Your task to perform on an android device: set an alarm Image 0: 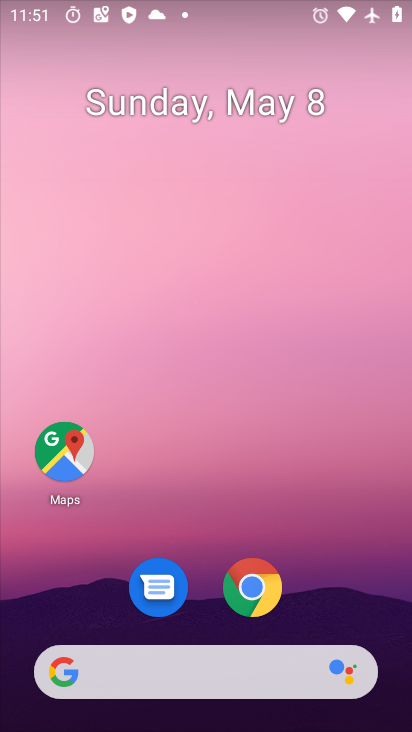
Step 0: press home button
Your task to perform on an android device: set an alarm Image 1: 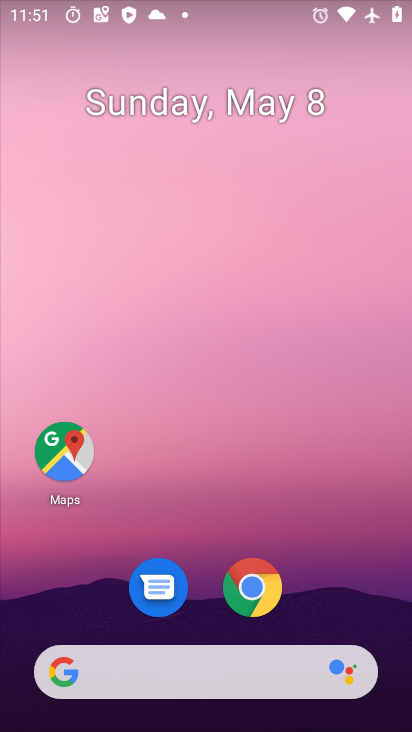
Step 1: press home button
Your task to perform on an android device: set an alarm Image 2: 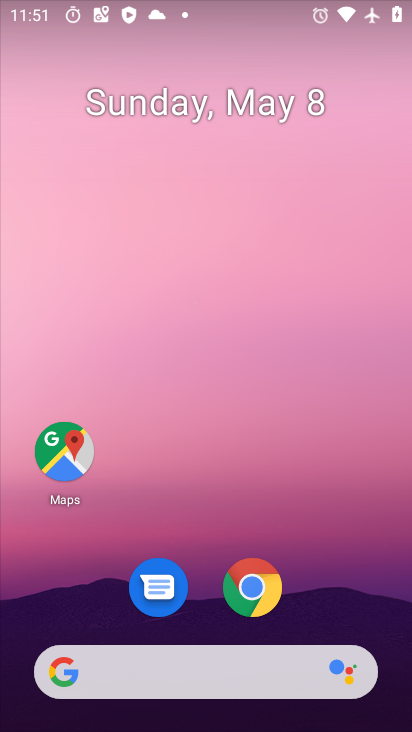
Step 2: press home button
Your task to perform on an android device: set an alarm Image 3: 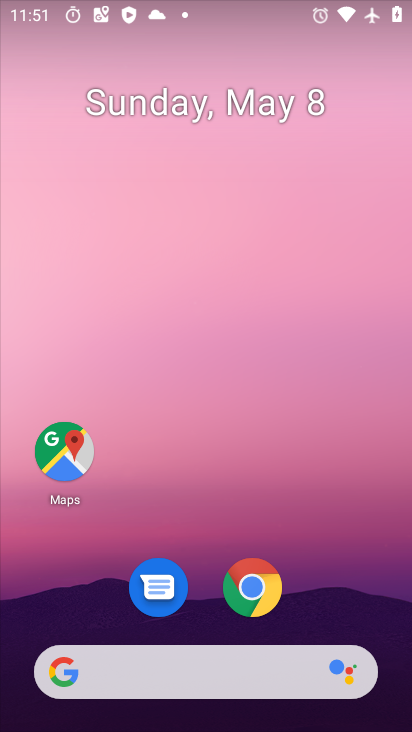
Step 3: press back button
Your task to perform on an android device: set an alarm Image 4: 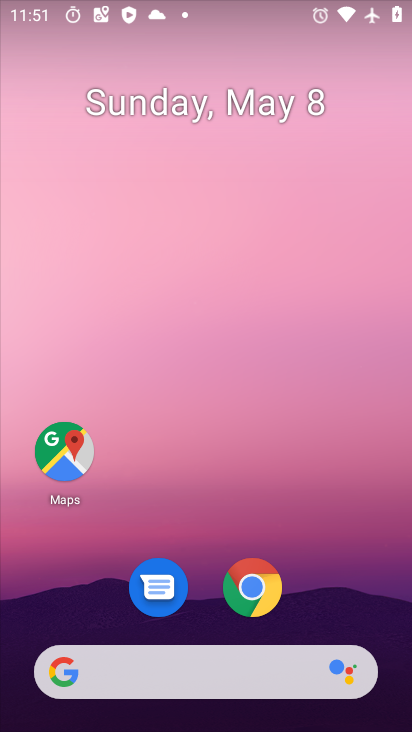
Step 4: drag from (343, 598) to (93, 133)
Your task to perform on an android device: set an alarm Image 5: 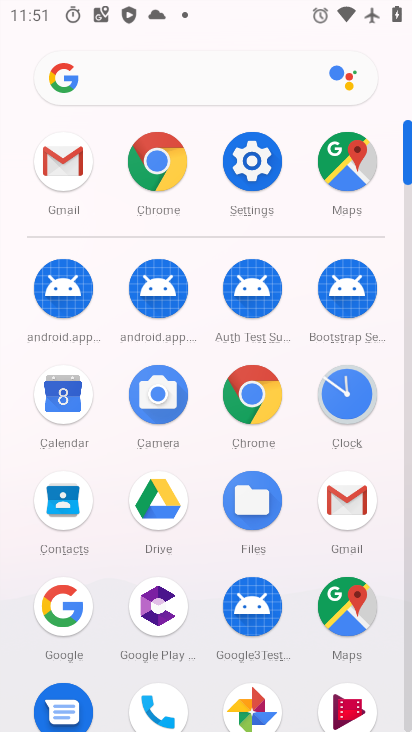
Step 5: drag from (296, 511) to (185, 230)
Your task to perform on an android device: set an alarm Image 6: 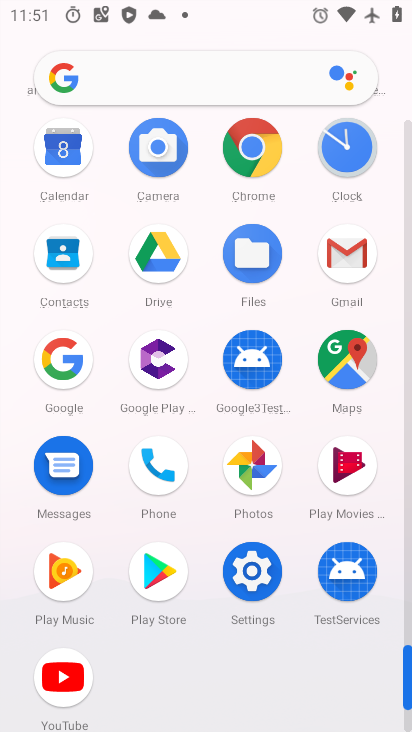
Step 6: click (334, 142)
Your task to perform on an android device: set an alarm Image 7: 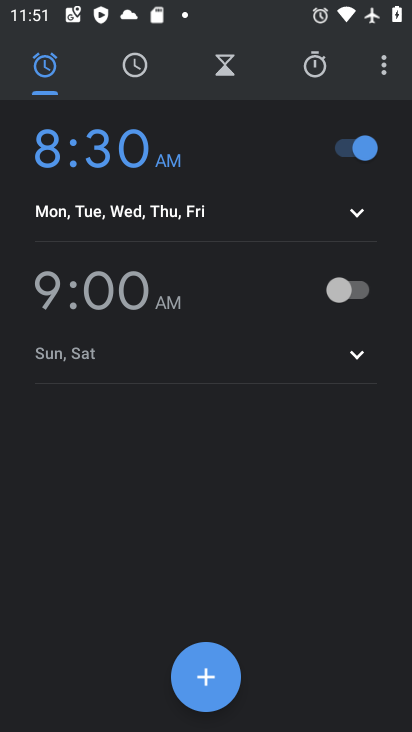
Step 7: click (334, 289)
Your task to perform on an android device: set an alarm Image 8: 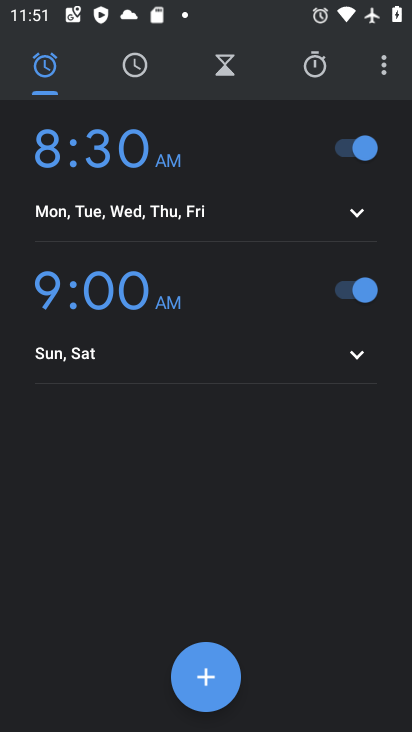
Step 8: task complete